Your task to perform on an android device: turn off sleep mode Image 0: 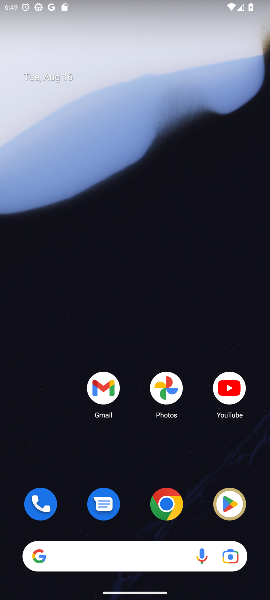
Step 0: drag from (27, 582) to (218, 118)
Your task to perform on an android device: turn off sleep mode Image 1: 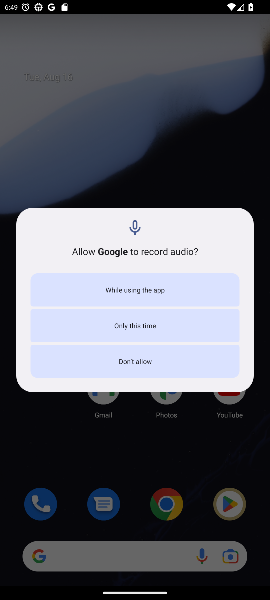
Step 1: task complete